Your task to perform on an android device: turn smart compose on in the gmail app Image 0: 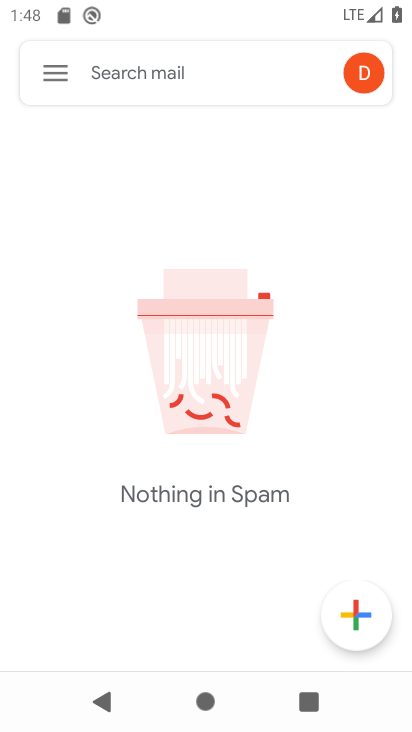
Step 0: press home button
Your task to perform on an android device: turn smart compose on in the gmail app Image 1: 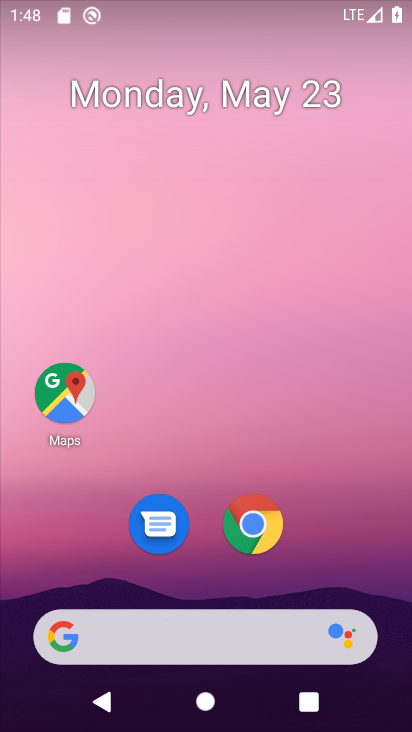
Step 1: drag from (211, 467) to (269, 31)
Your task to perform on an android device: turn smart compose on in the gmail app Image 2: 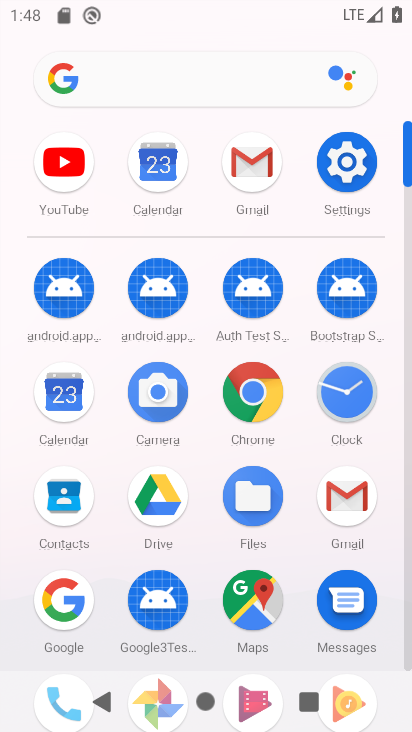
Step 2: drag from (202, 543) to (249, 297)
Your task to perform on an android device: turn smart compose on in the gmail app Image 3: 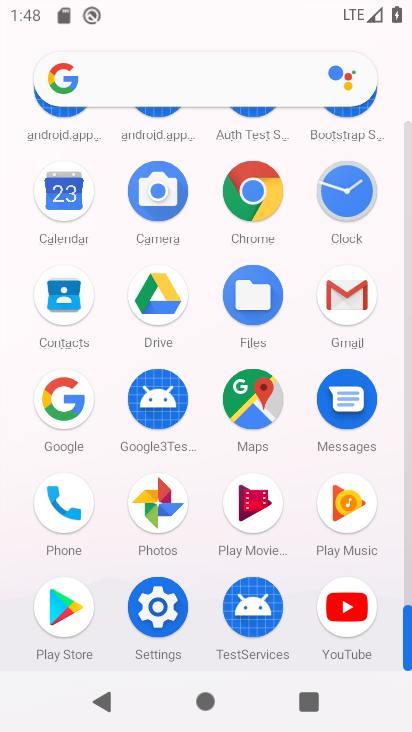
Step 3: click (351, 298)
Your task to perform on an android device: turn smart compose on in the gmail app Image 4: 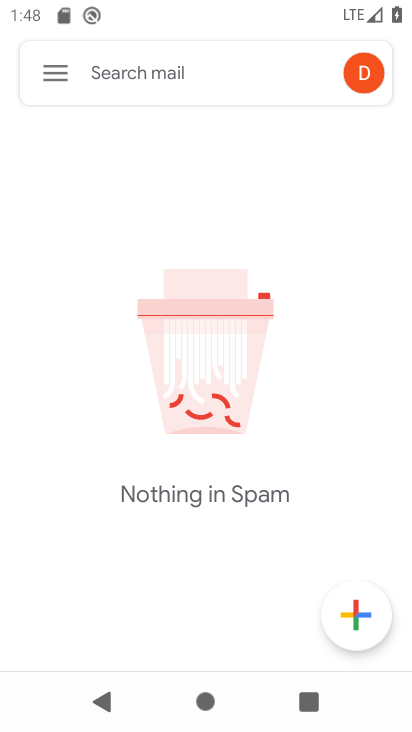
Step 4: click (61, 76)
Your task to perform on an android device: turn smart compose on in the gmail app Image 5: 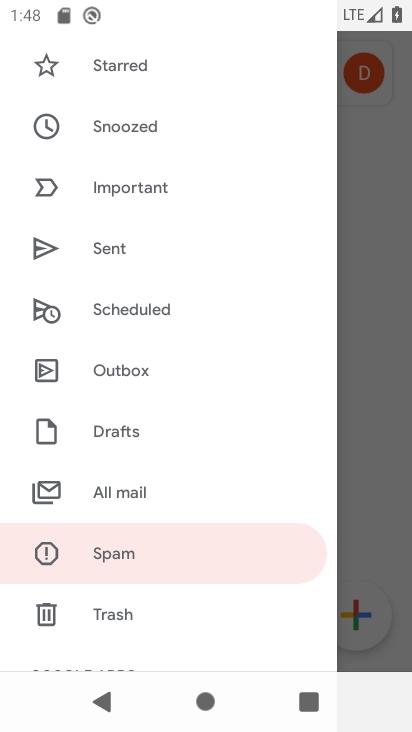
Step 5: drag from (183, 466) to (247, 119)
Your task to perform on an android device: turn smart compose on in the gmail app Image 6: 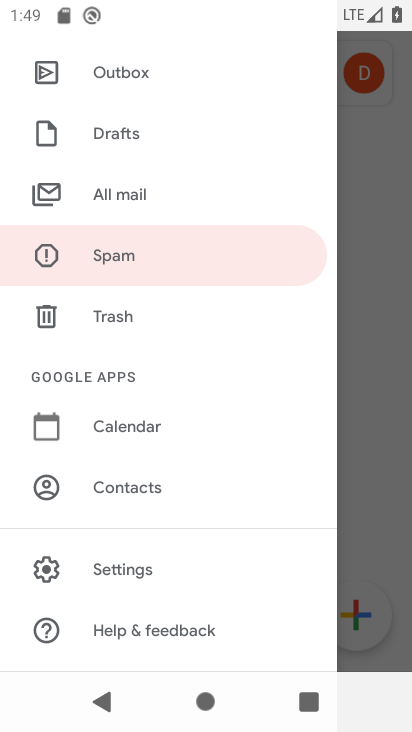
Step 6: click (136, 560)
Your task to perform on an android device: turn smart compose on in the gmail app Image 7: 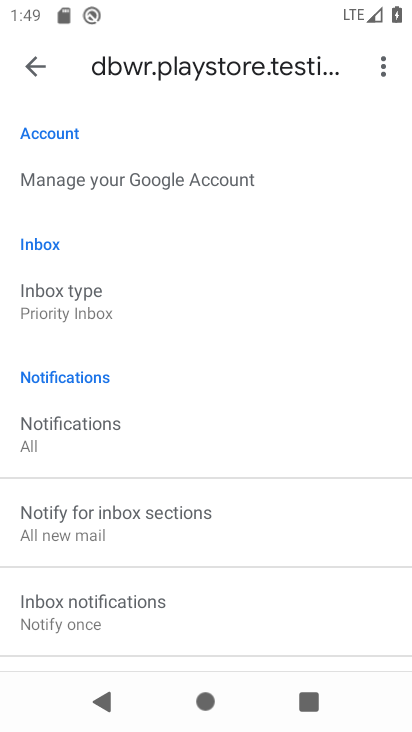
Step 7: task complete